Your task to perform on an android device: Open Yahoo.com Image 0: 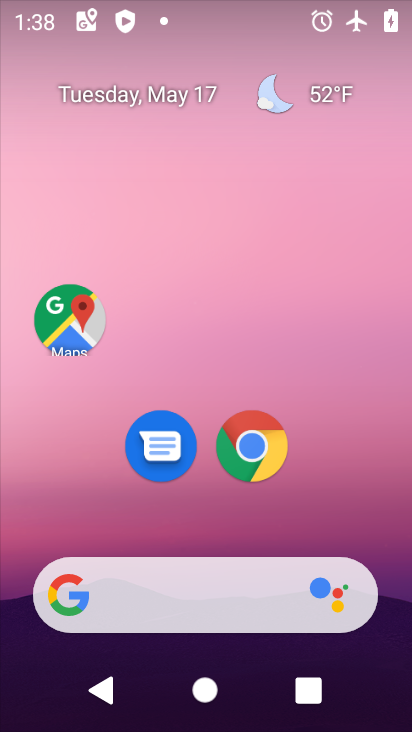
Step 0: click (256, 444)
Your task to perform on an android device: Open Yahoo.com Image 1: 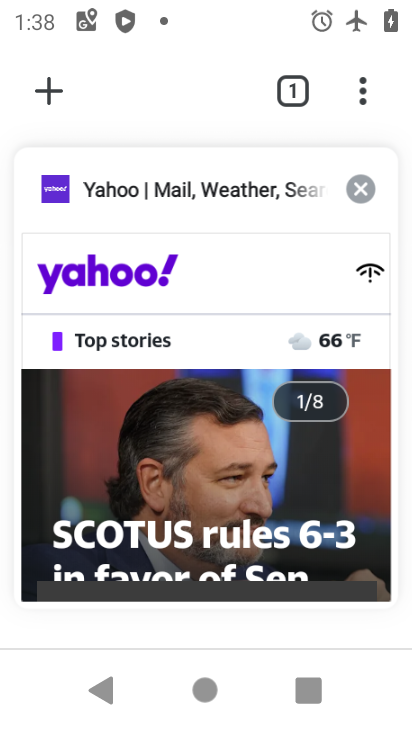
Step 1: click (208, 317)
Your task to perform on an android device: Open Yahoo.com Image 2: 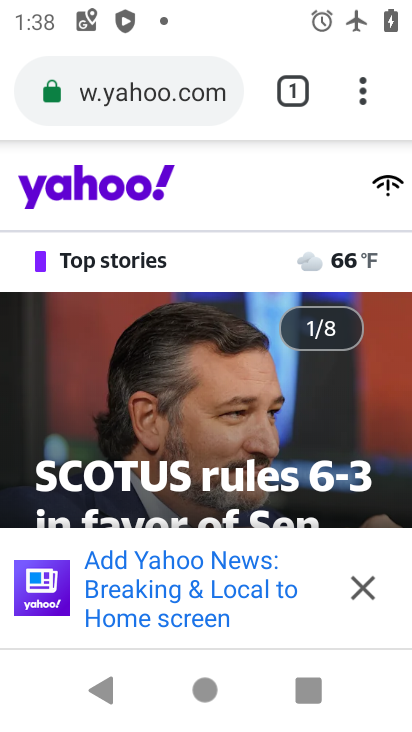
Step 2: click (127, 87)
Your task to perform on an android device: Open Yahoo.com Image 3: 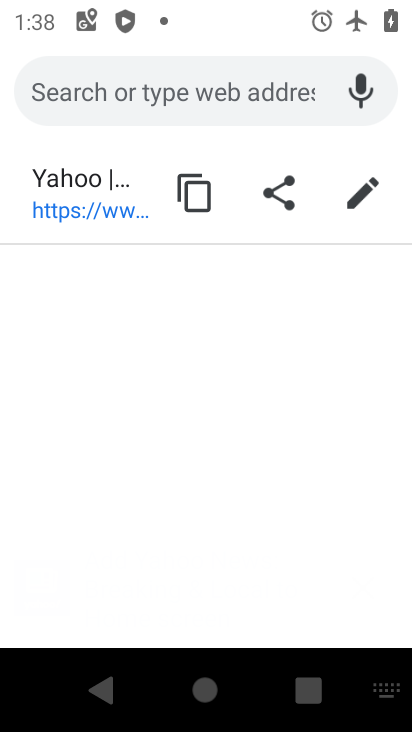
Step 3: type "Yahoo.com"
Your task to perform on an android device: Open Yahoo.com Image 4: 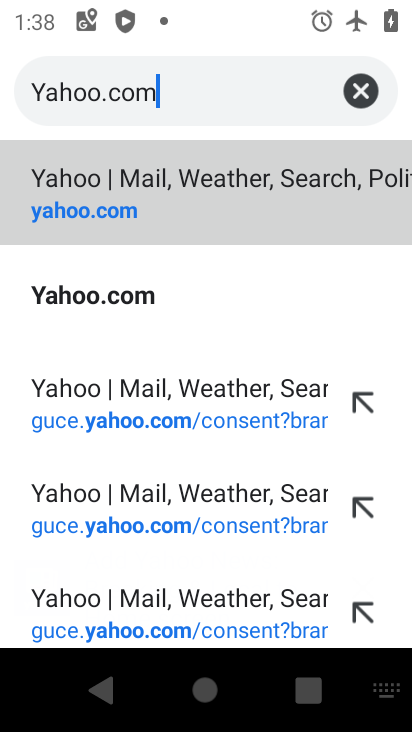
Step 4: click (75, 290)
Your task to perform on an android device: Open Yahoo.com Image 5: 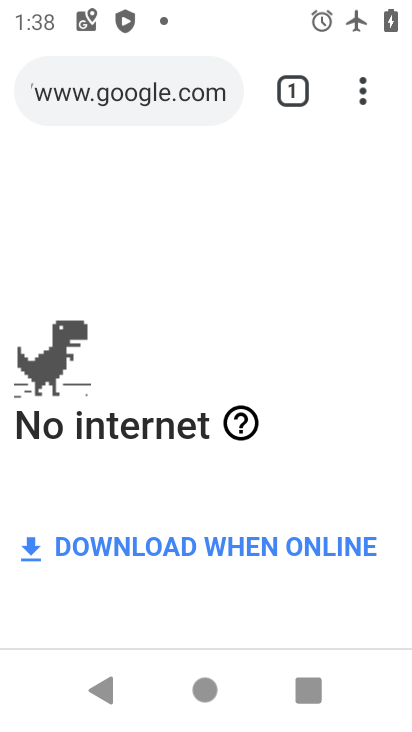
Step 5: task complete